Your task to perform on an android device: see sites visited before in the chrome app Image 0: 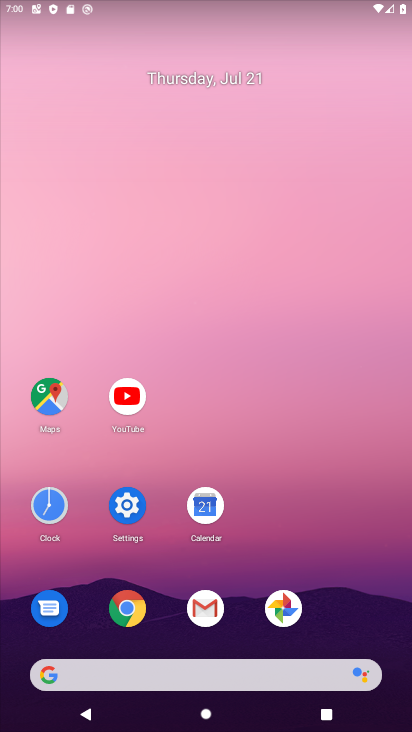
Step 0: click (126, 610)
Your task to perform on an android device: see sites visited before in the chrome app Image 1: 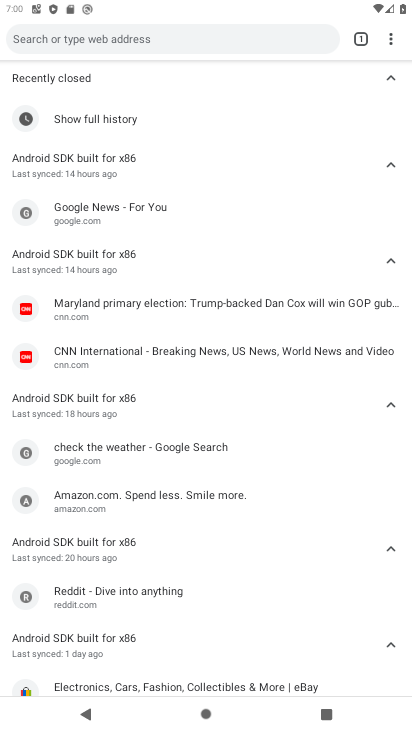
Step 1: click (390, 29)
Your task to perform on an android device: see sites visited before in the chrome app Image 2: 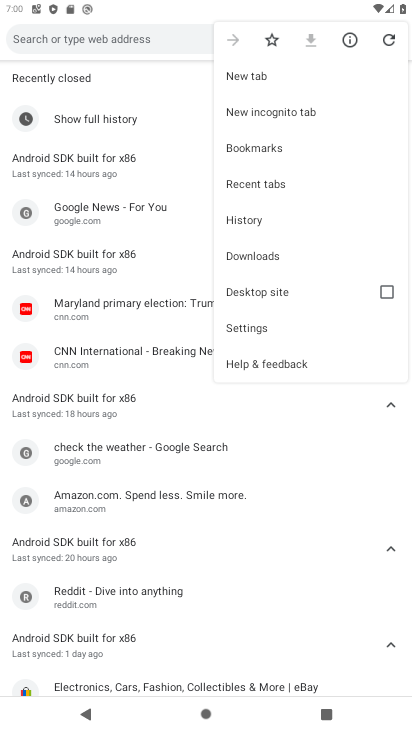
Step 2: click (251, 215)
Your task to perform on an android device: see sites visited before in the chrome app Image 3: 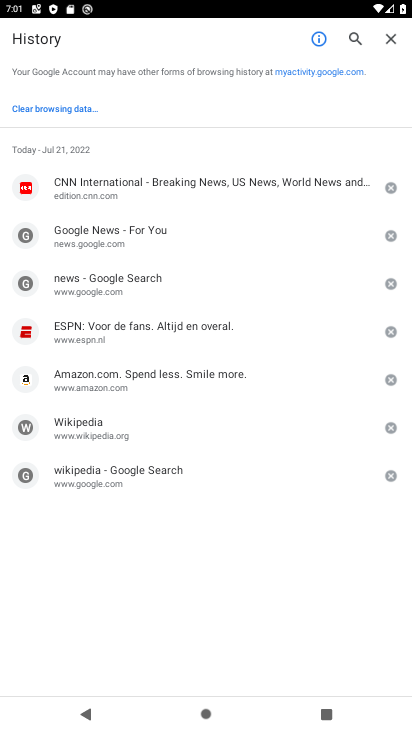
Step 3: task complete